Your task to perform on an android device: Open network settings Image 0: 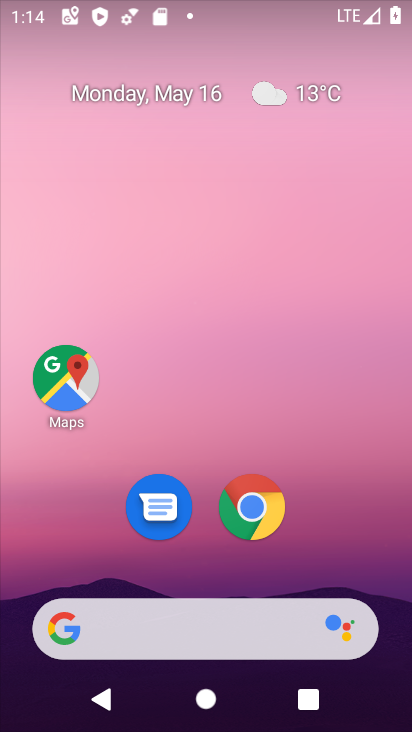
Step 0: drag from (334, 558) to (235, 63)
Your task to perform on an android device: Open network settings Image 1: 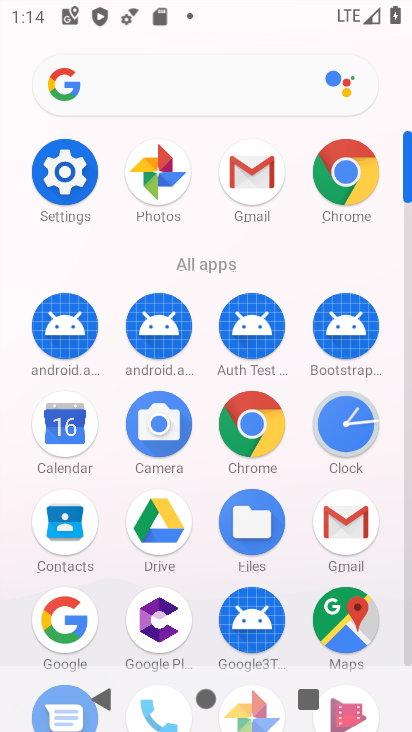
Step 1: click (59, 187)
Your task to perform on an android device: Open network settings Image 2: 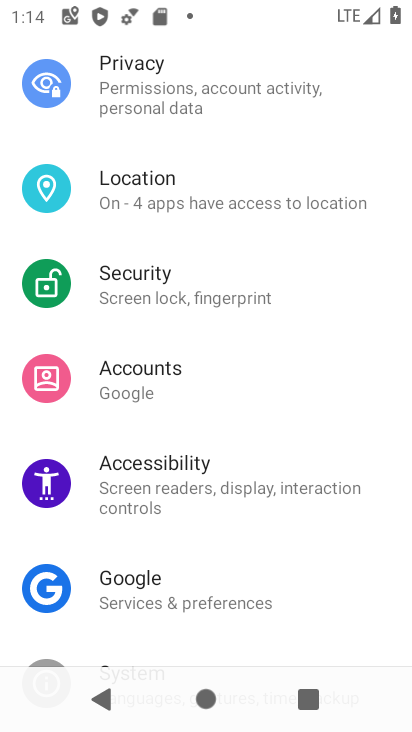
Step 2: drag from (251, 160) to (255, 600)
Your task to perform on an android device: Open network settings Image 3: 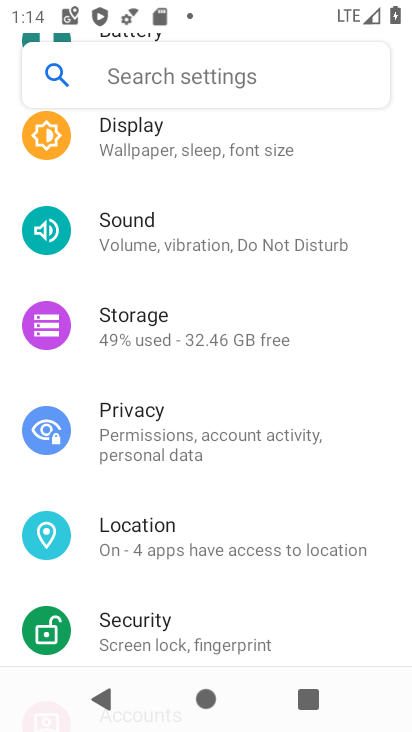
Step 3: drag from (225, 200) to (236, 609)
Your task to perform on an android device: Open network settings Image 4: 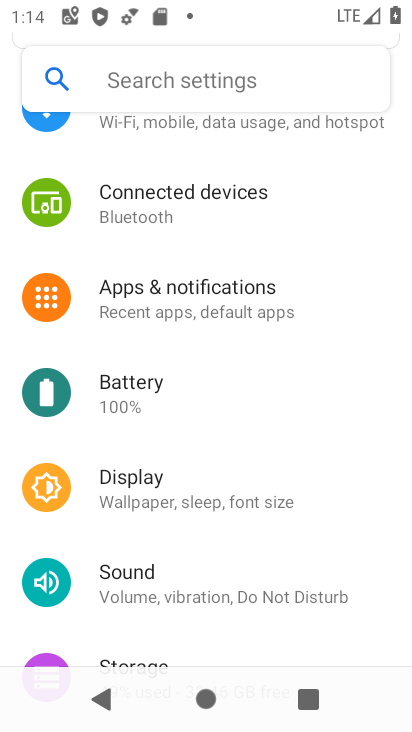
Step 4: drag from (241, 184) to (251, 454)
Your task to perform on an android device: Open network settings Image 5: 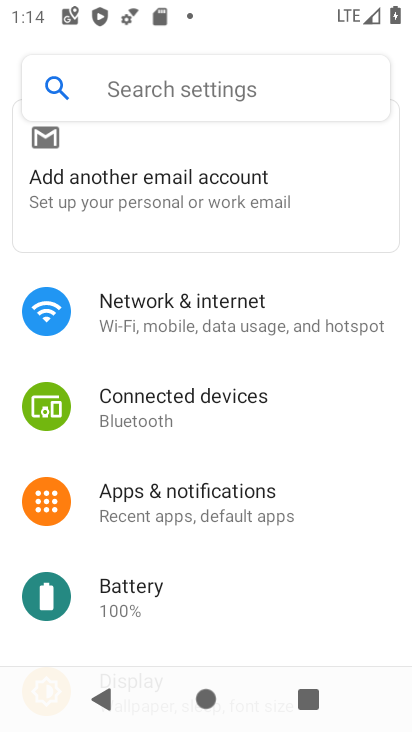
Step 5: click (232, 308)
Your task to perform on an android device: Open network settings Image 6: 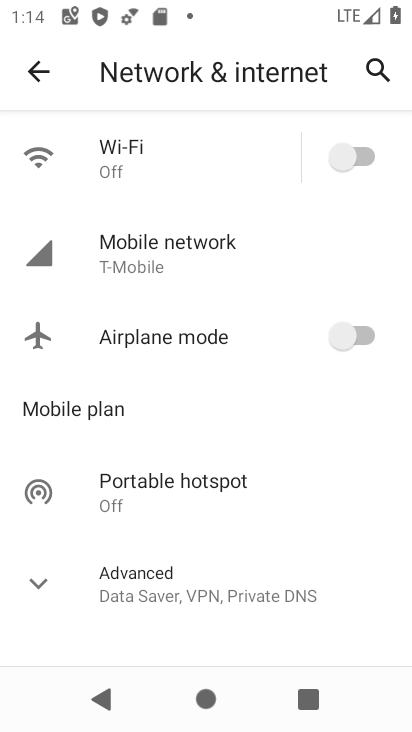
Step 6: task complete